Your task to perform on an android device: turn on the 24-hour format for clock Image 0: 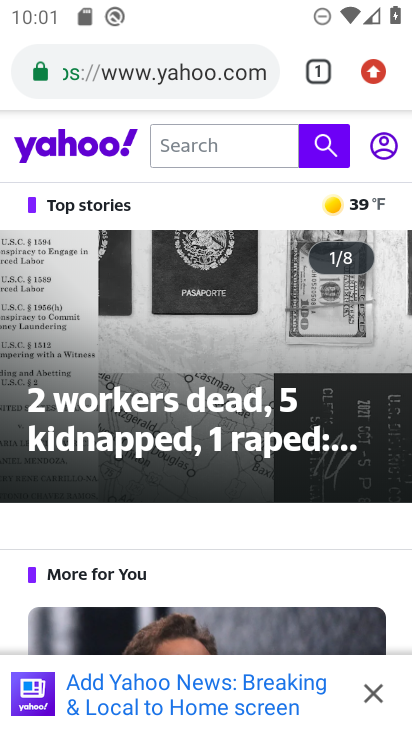
Step 0: press back button
Your task to perform on an android device: turn on the 24-hour format for clock Image 1: 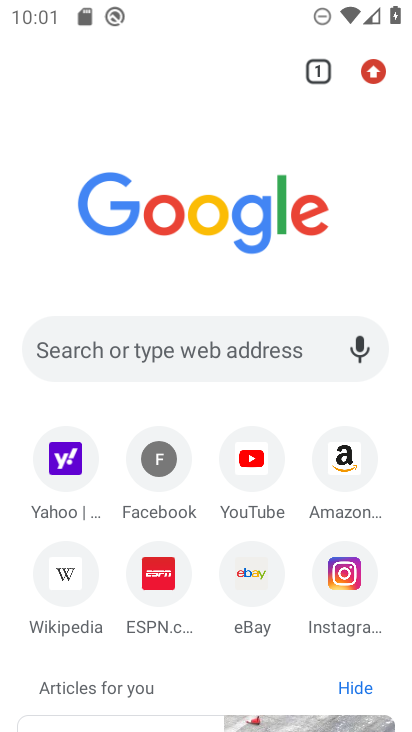
Step 1: press back button
Your task to perform on an android device: turn on the 24-hour format for clock Image 2: 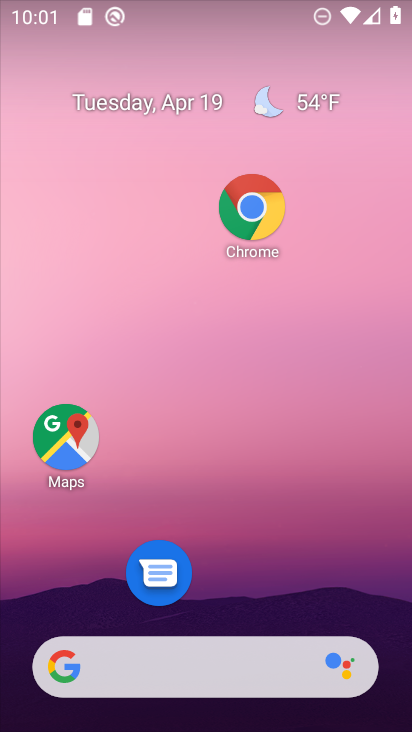
Step 2: drag from (191, 634) to (313, 176)
Your task to perform on an android device: turn on the 24-hour format for clock Image 3: 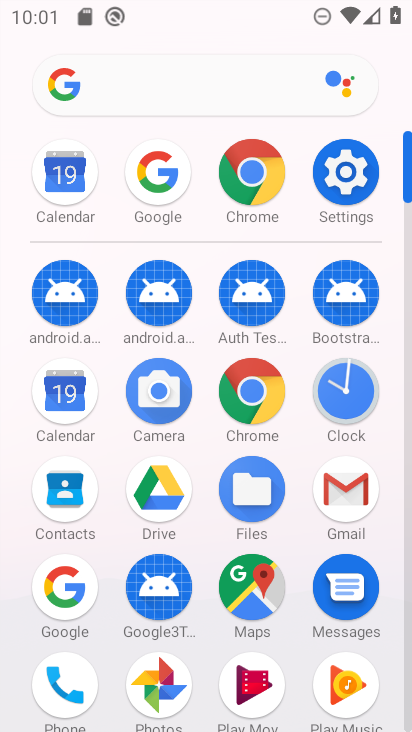
Step 3: click (353, 415)
Your task to perform on an android device: turn on the 24-hour format for clock Image 4: 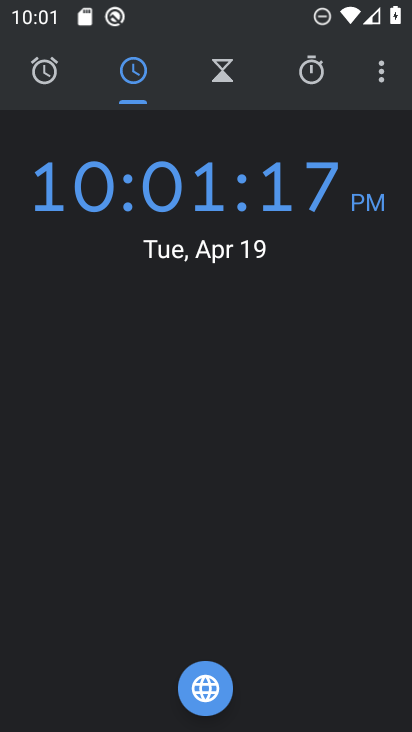
Step 4: click (386, 73)
Your task to perform on an android device: turn on the 24-hour format for clock Image 5: 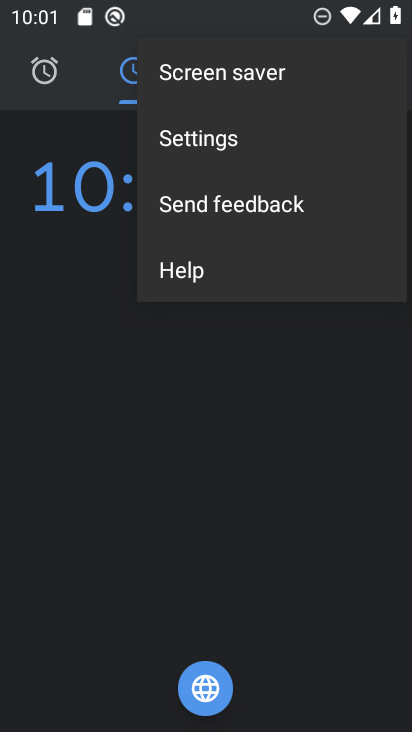
Step 5: click (182, 141)
Your task to perform on an android device: turn on the 24-hour format for clock Image 6: 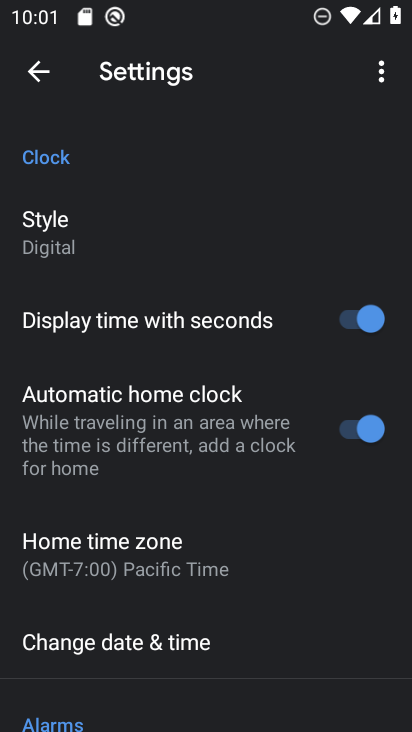
Step 6: click (91, 638)
Your task to perform on an android device: turn on the 24-hour format for clock Image 7: 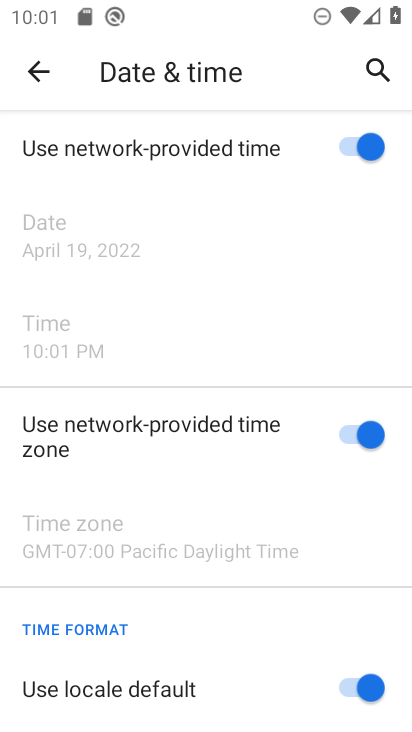
Step 7: drag from (258, 717) to (378, 436)
Your task to perform on an android device: turn on the 24-hour format for clock Image 8: 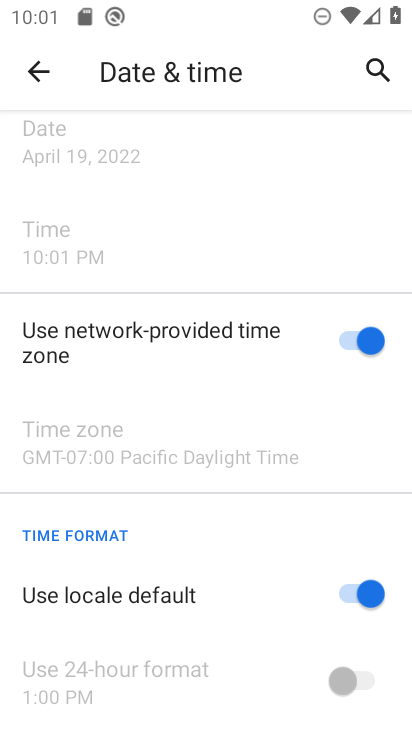
Step 8: click (356, 593)
Your task to perform on an android device: turn on the 24-hour format for clock Image 9: 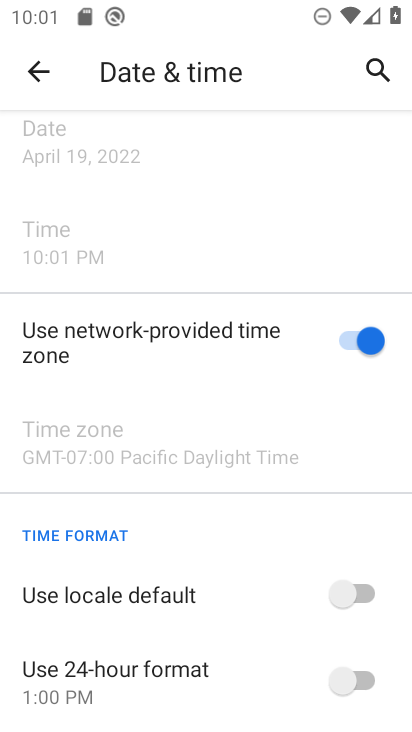
Step 9: task complete